Your task to perform on an android device: create a new album in the google photos Image 0: 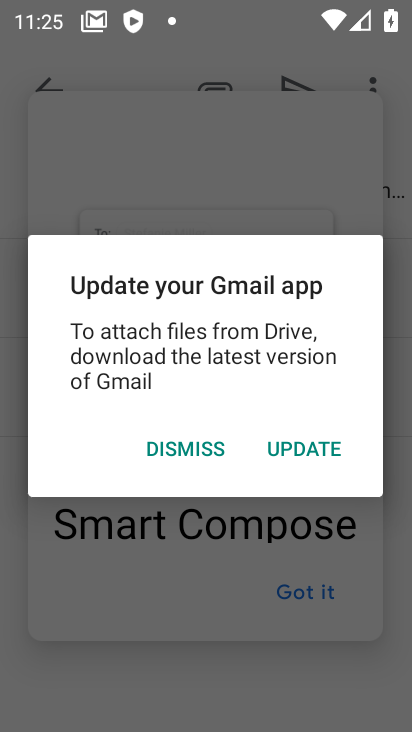
Step 0: press home button
Your task to perform on an android device: create a new album in the google photos Image 1: 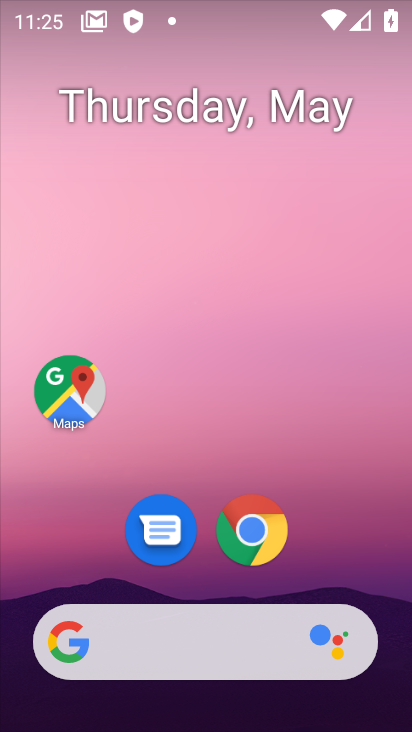
Step 1: drag from (386, 598) to (346, 310)
Your task to perform on an android device: create a new album in the google photos Image 2: 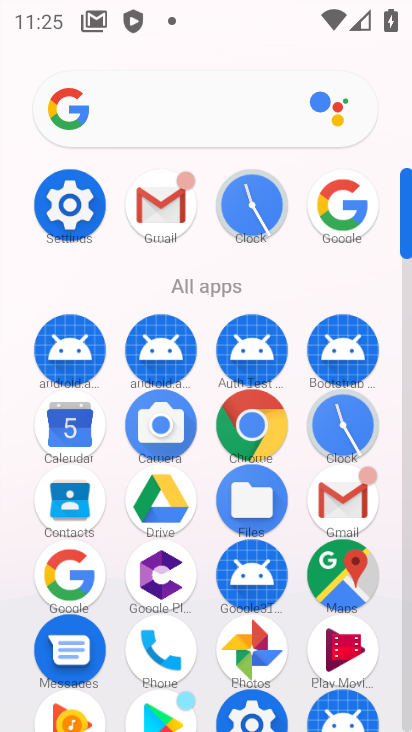
Step 2: click (237, 647)
Your task to perform on an android device: create a new album in the google photos Image 3: 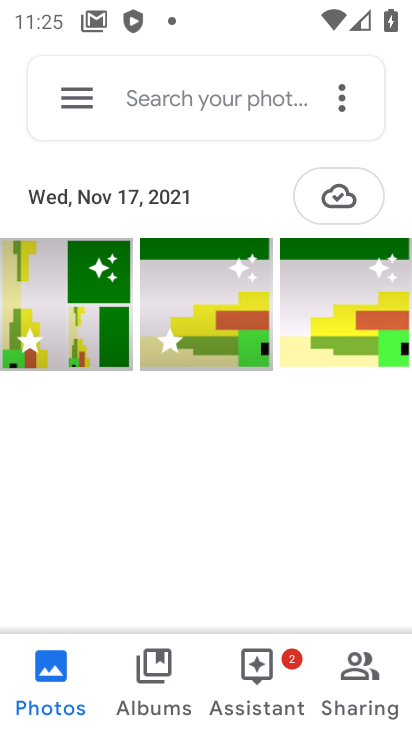
Step 3: click (336, 97)
Your task to perform on an android device: create a new album in the google photos Image 4: 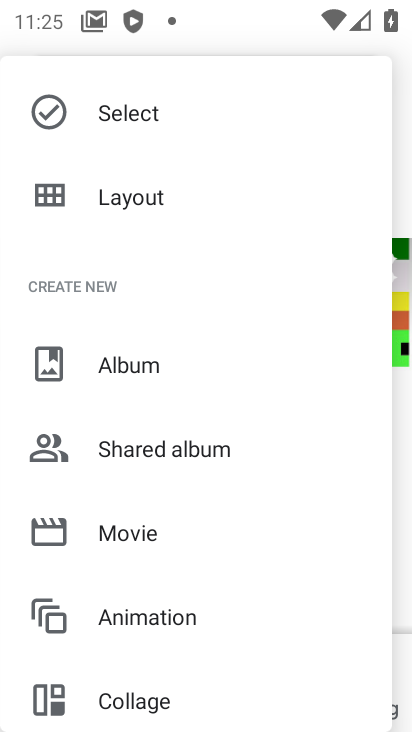
Step 4: click (163, 369)
Your task to perform on an android device: create a new album in the google photos Image 5: 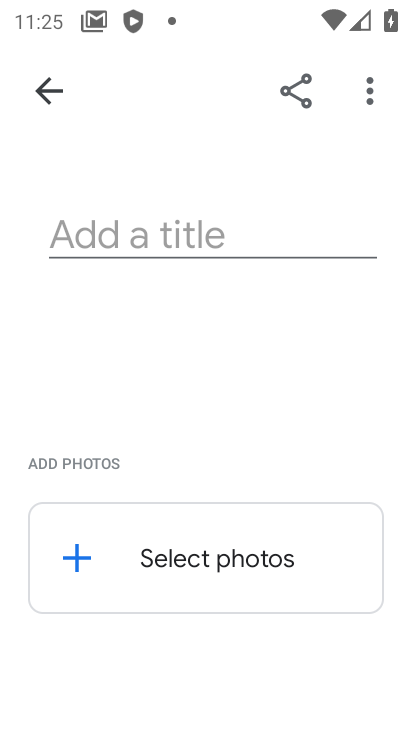
Step 5: click (107, 233)
Your task to perform on an android device: create a new album in the google photos Image 6: 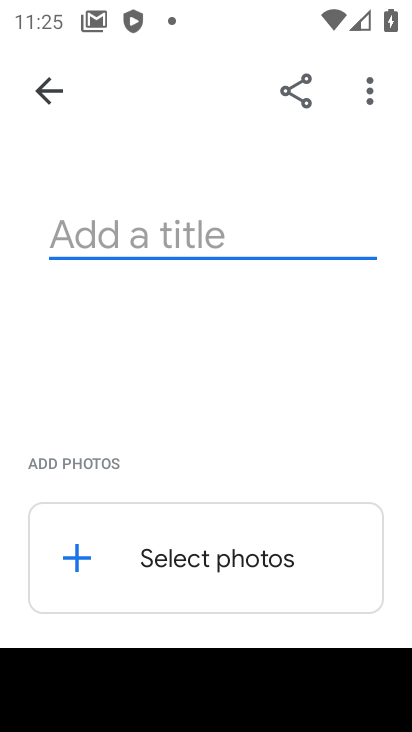
Step 6: type "cvxfbfbv"
Your task to perform on an android device: create a new album in the google photos Image 7: 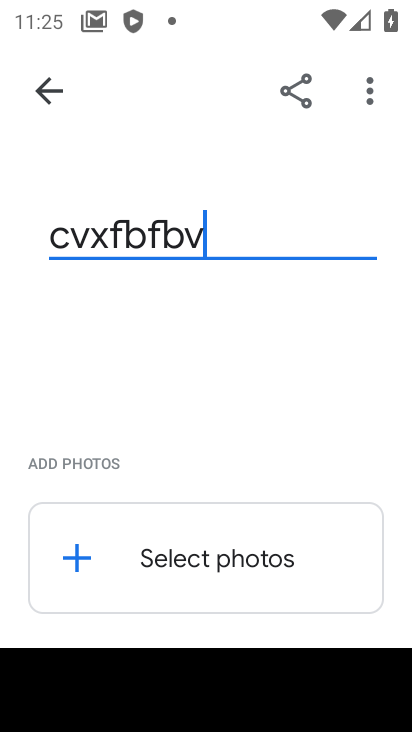
Step 7: click (75, 554)
Your task to perform on an android device: create a new album in the google photos Image 8: 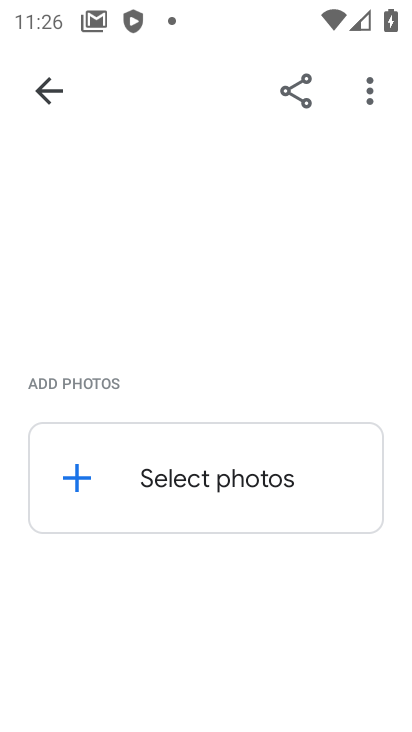
Step 8: click (166, 483)
Your task to perform on an android device: create a new album in the google photos Image 9: 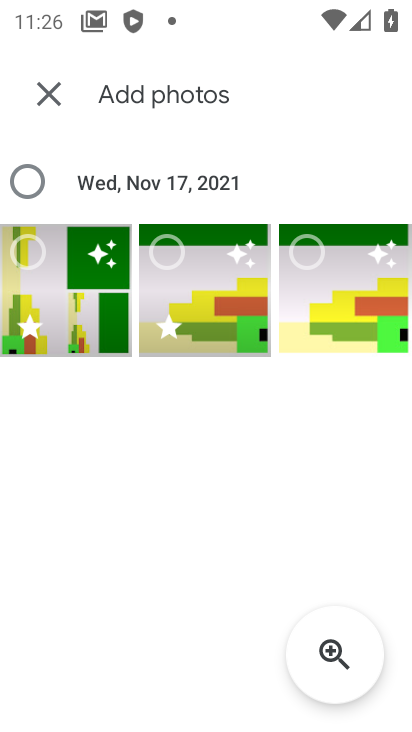
Step 9: click (23, 259)
Your task to perform on an android device: create a new album in the google photos Image 10: 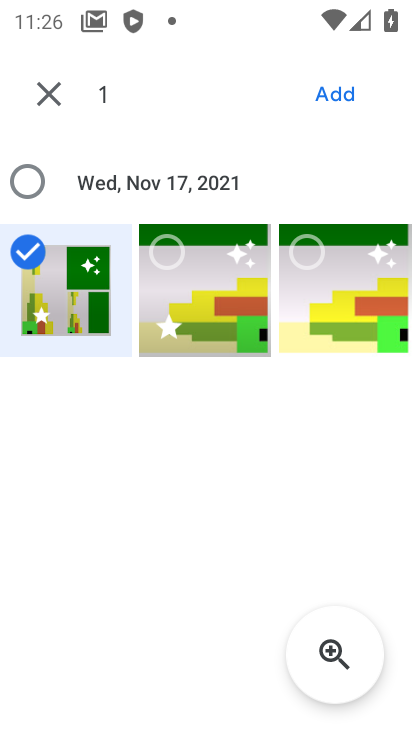
Step 10: click (163, 246)
Your task to perform on an android device: create a new album in the google photos Image 11: 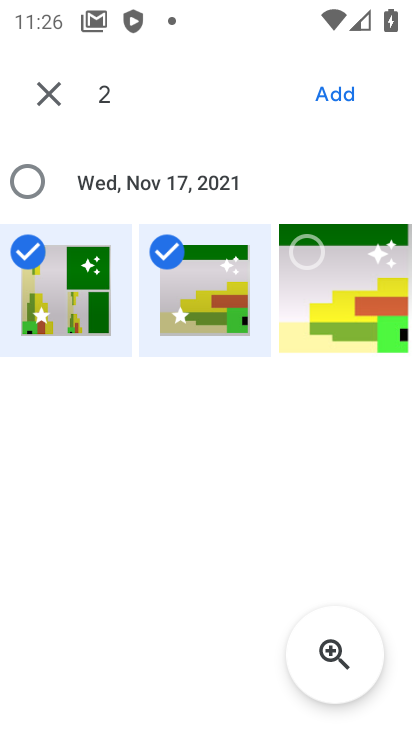
Step 11: click (330, 88)
Your task to perform on an android device: create a new album in the google photos Image 12: 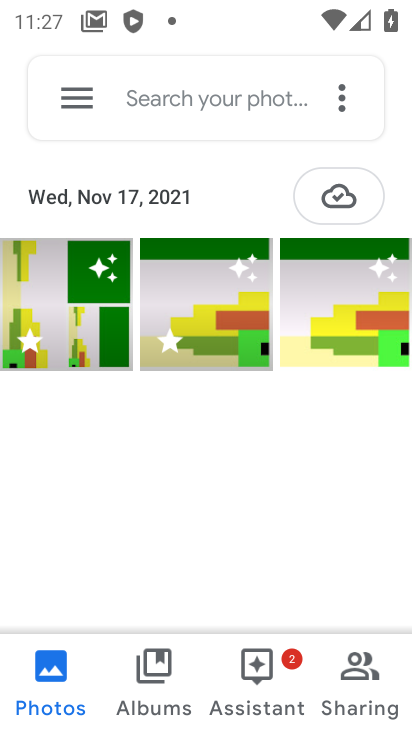
Step 12: task complete